Your task to perform on an android device: clear history in the chrome app Image 0: 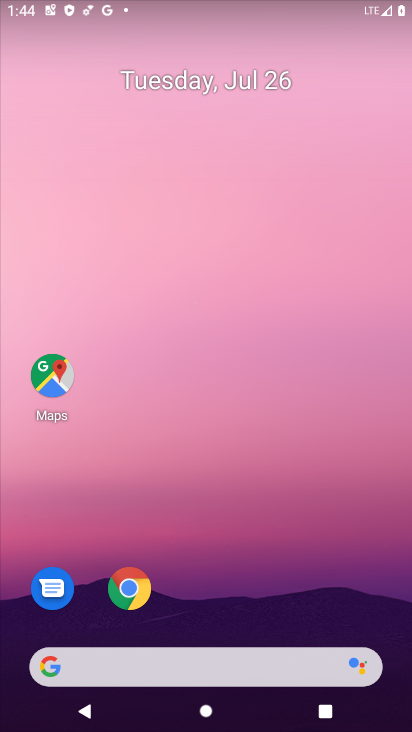
Step 0: drag from (221, 631) to (160, 93)
Your task to perform on an android device: clear history in the chrome app Image 1: 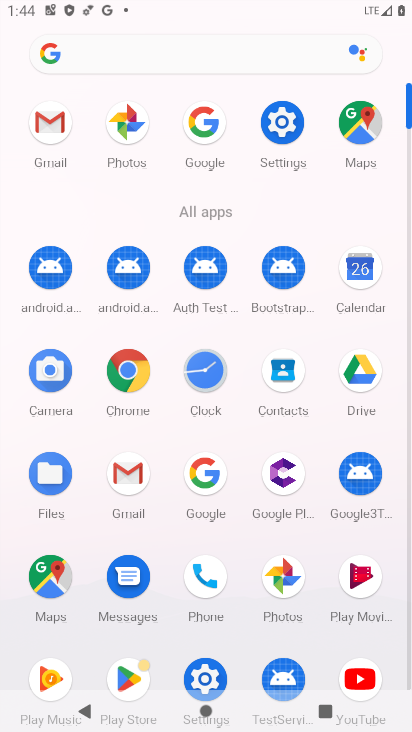
Step 1: click (115, 370)
Your task to perform on an android device: clear history in the chrome app Image 2: 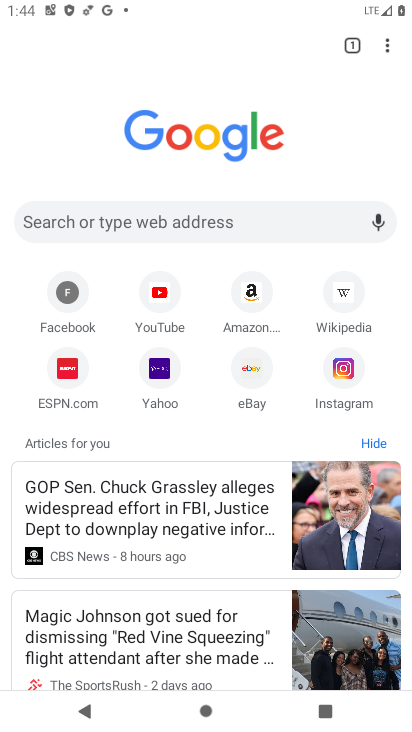
Step 2: click (382, 38)
Your task to perform on an android device: clear history in the chrome app Image 3: 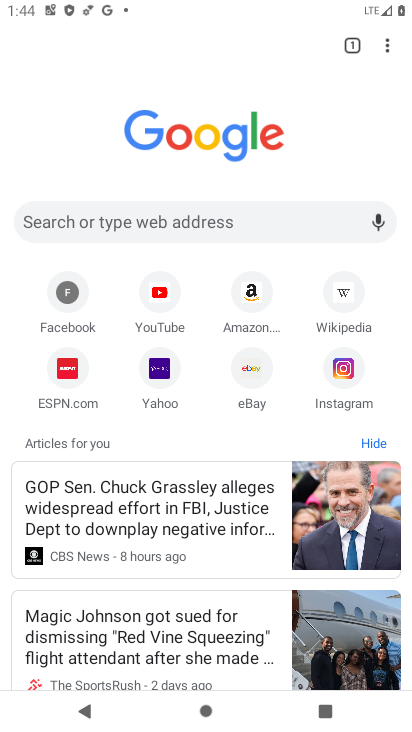
Step 3: drag from (387, 39) to (217, 314)
Your task to perform on an android device: clear history in the chrome app Image 4: 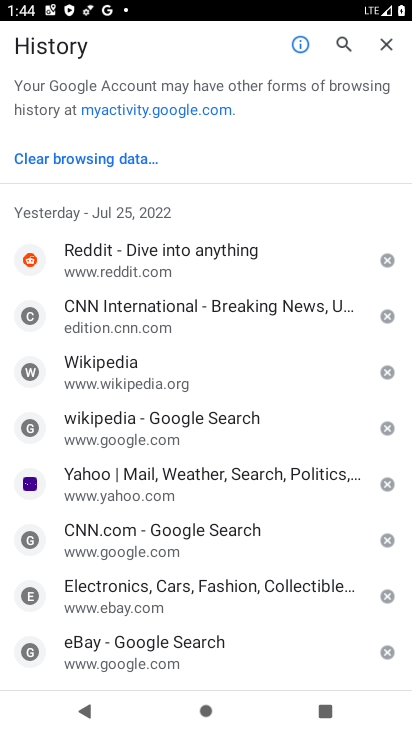
Step 4: click (68, 151)
Your task to perform on an android device: clear history in the chrome app Image 5: 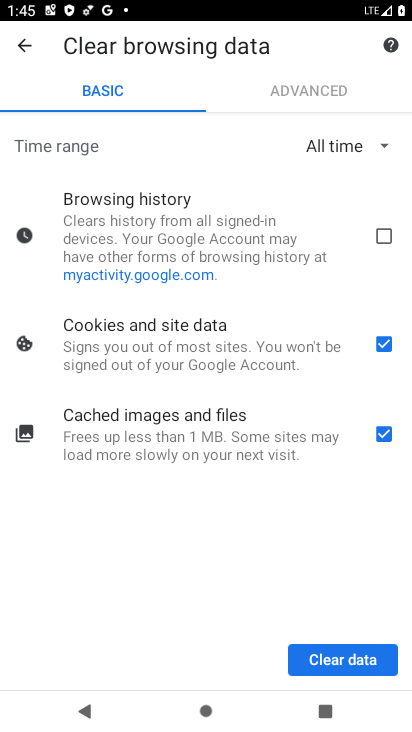
Step 5: click (384, 232)
Your task to perform on an android device: clear history in the chrome app Image 6: 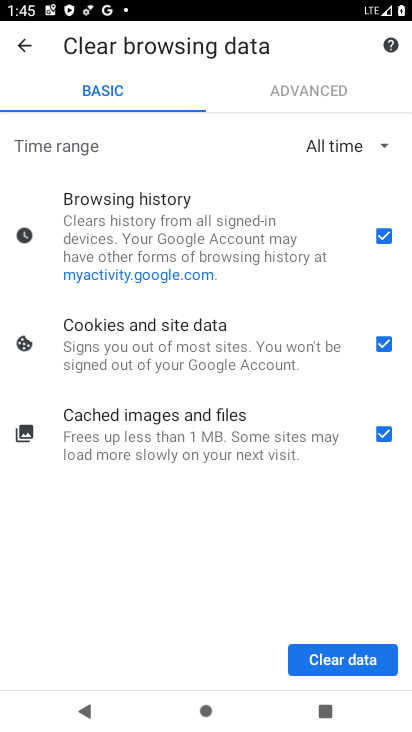
Step 6: click (364, 657)
Your task to perform on an android device: clear history in the chrome app Image 7: 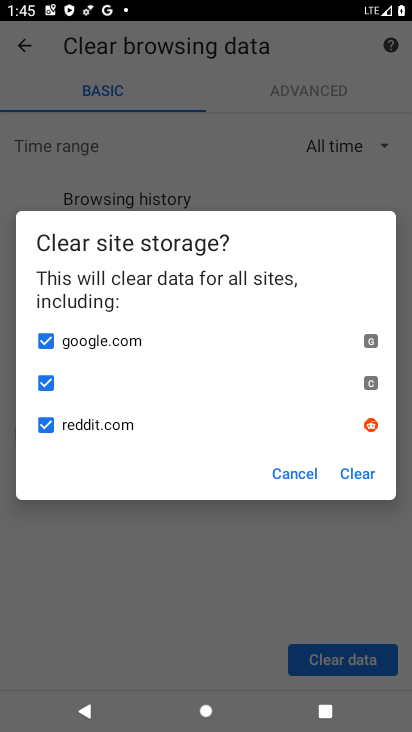
Step 7: click (357, 491)
Your task to perform on an android device: clear history in the chrome app Image 8: 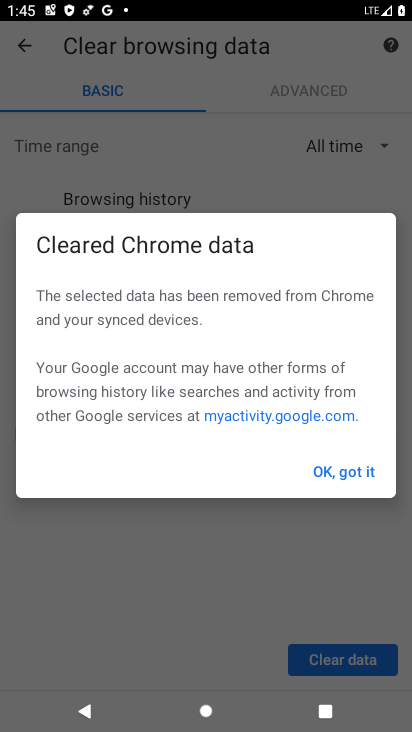
Step 8: click (351, 468)
Your task to perform on an android device: clear history in the chrome app Image 9: 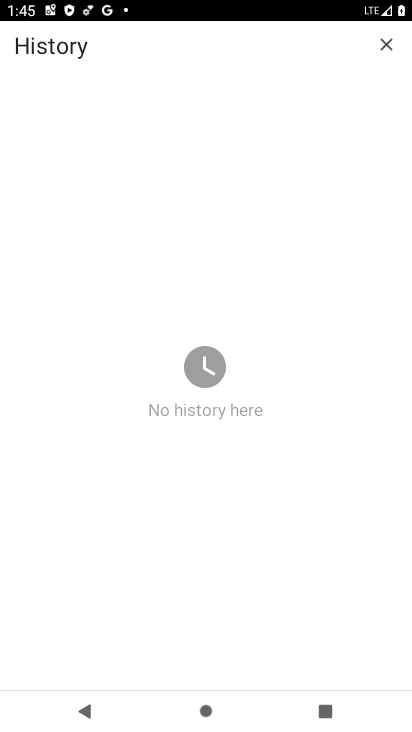
Step 9: task complete